Your task to perform on an android device: delete a single message in the gmail app Image 0: 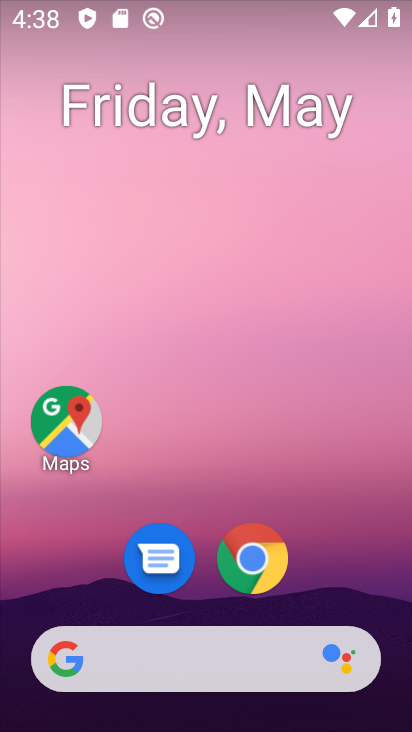
Step 0: drag from (352, 578) to (320, 91)
Your task to perform on an android device: delete a single message in the gmail app Image 1: 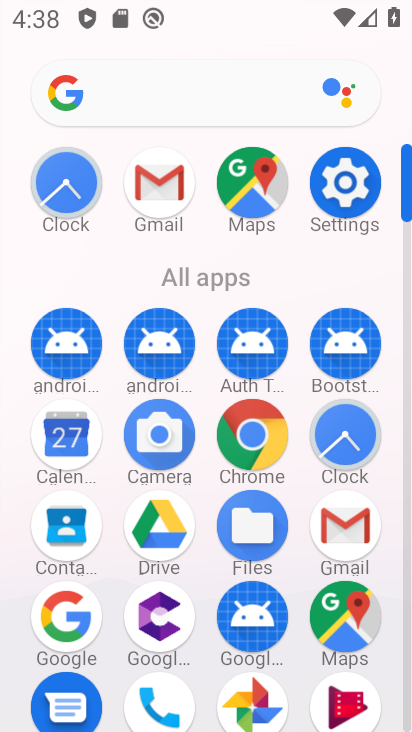
Step 1: click (156, 203)
Your task to perform on an android device: delete a single message in the gmail app Image 2: 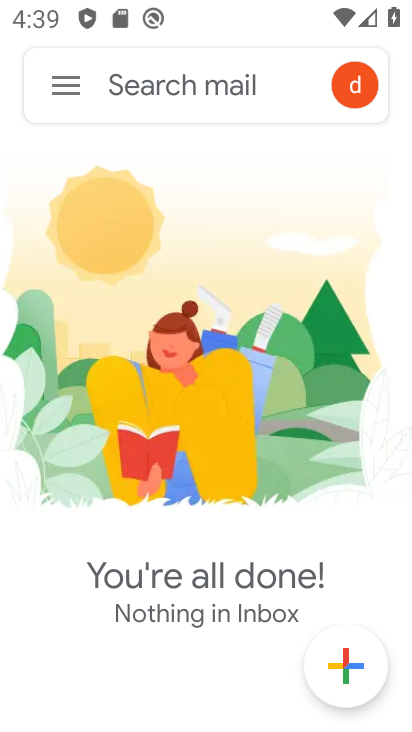
Step 2: task complete